Your task to perform on an android device: set default search engine in the chrome app Image 0: 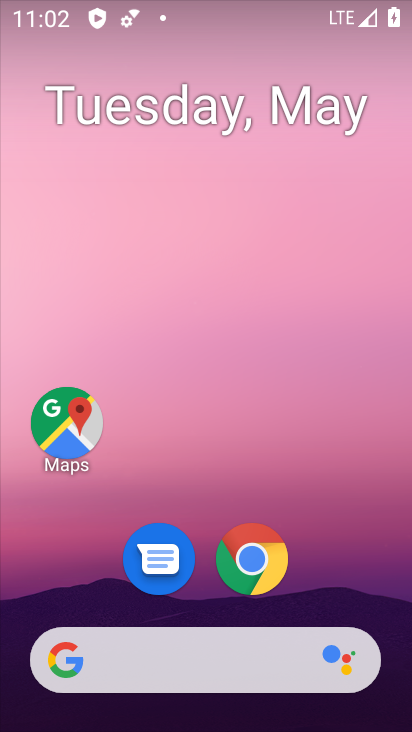
Step 0: drag from (375, 593) to (339, 185)
Your task to perform on an android device: set default search engine in the chrome app Image 1: 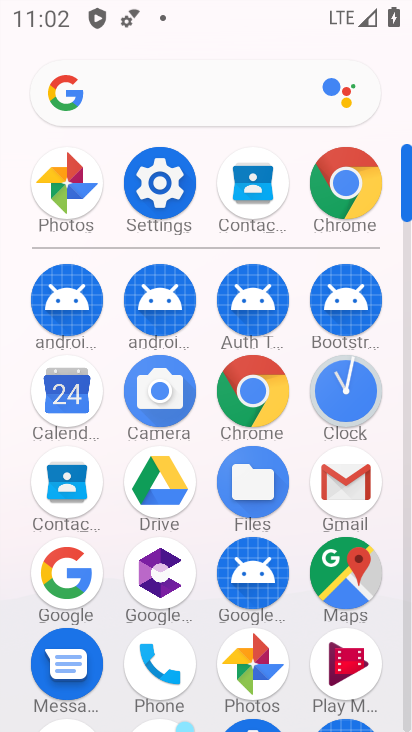
Step 1: click (275, 384)
Your task to perform on an android device: set default search engine in the chrome app Image 2: 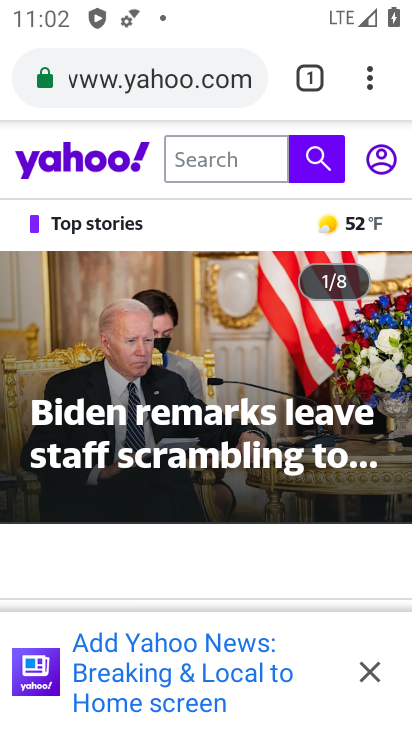
Step 2: drag from (368, 94) to (128, 636)
Your task to perform on an android device: set default search engine in the chrome app Image 3: 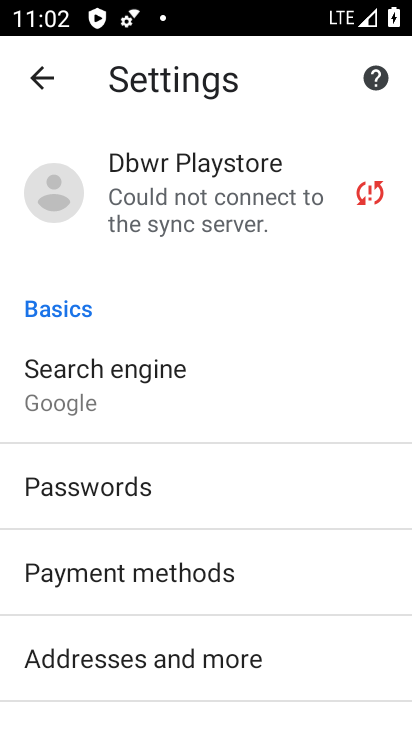
Step 3: drag from (341, 676) to (324, 250)
Your task to perform on an android device: set default search engine in the chrome app Image 4: 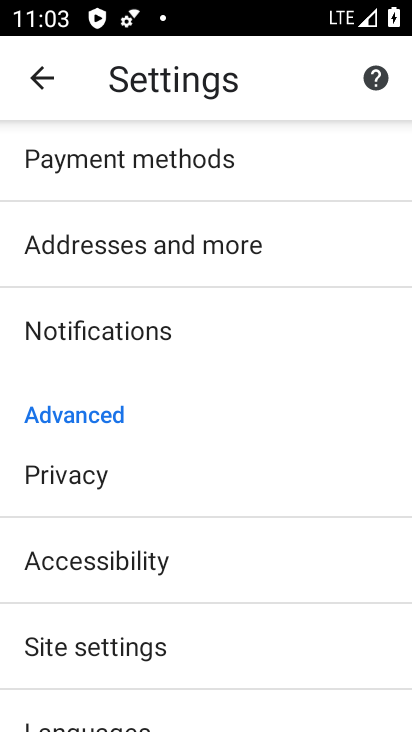
Step 4: drag from (328, 259) to (276, 627)
Your task to perform on an android device: set default search engine in the chrome app Image 5: 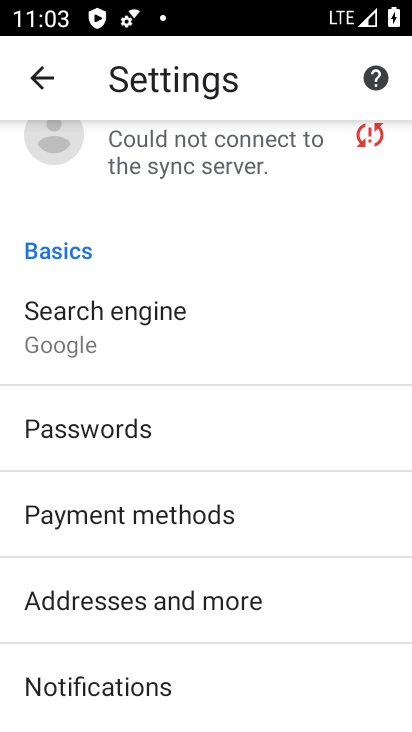
Step 5: click (117, 336)
Your task to perform on an android device: set default search engine in the chrome app Image 6: 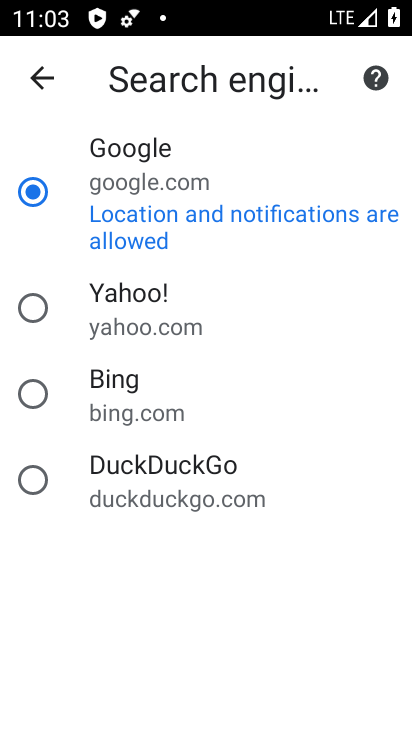
Step 6: click (32, 313)
Your task to perform on an android device: set default search engine in the chrome app Image 7: 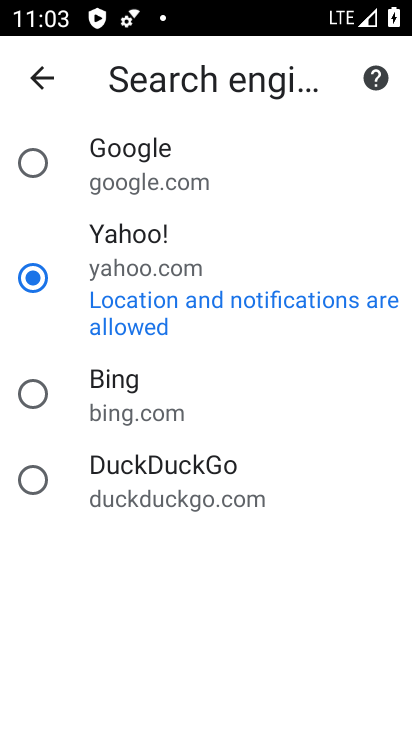
Step 7: task complete